Your task to perform on an android device: View the shopping cart on walmart.com. Add "logitech g pro" to the cart on walmart.com, then select checkout. Image 0: 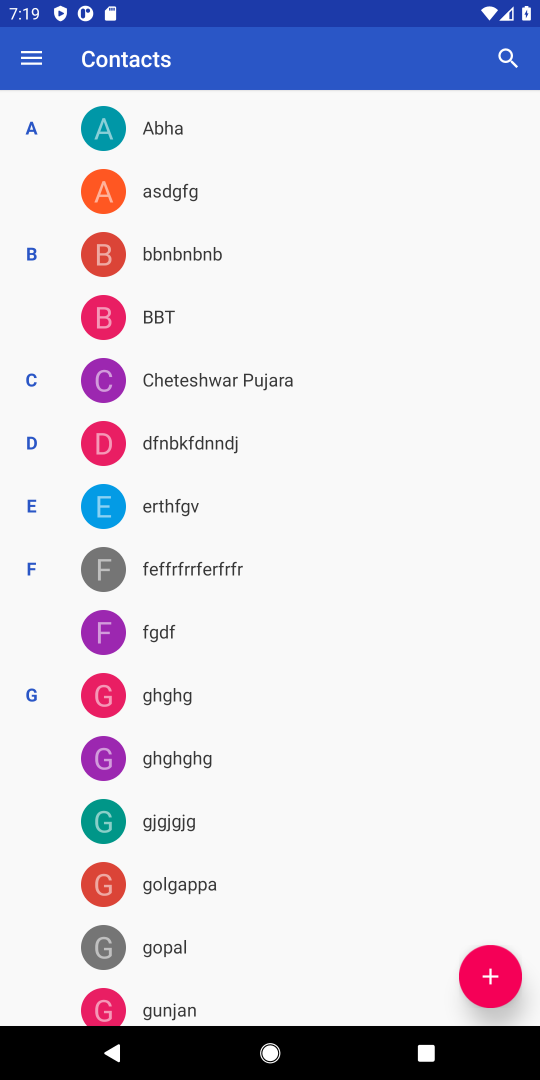
Step 0: press home button
Your task to perform on an android device: View the shopping cart on walmart.com. Add "logitech g pro" to the cart on walmart.com, then select checkout. Image 1: 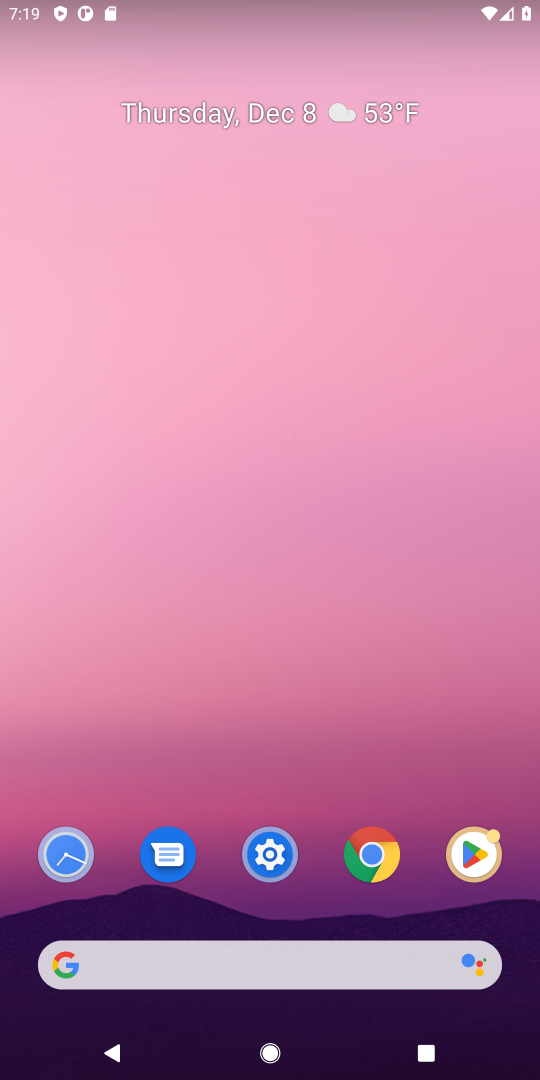
Step 1: click (97, 965)
Your task to perform on an android device: View the shopping cart on walmart.com. Add "logitech g pro" to the cart on walmart.com, then select checkout. Image 2: 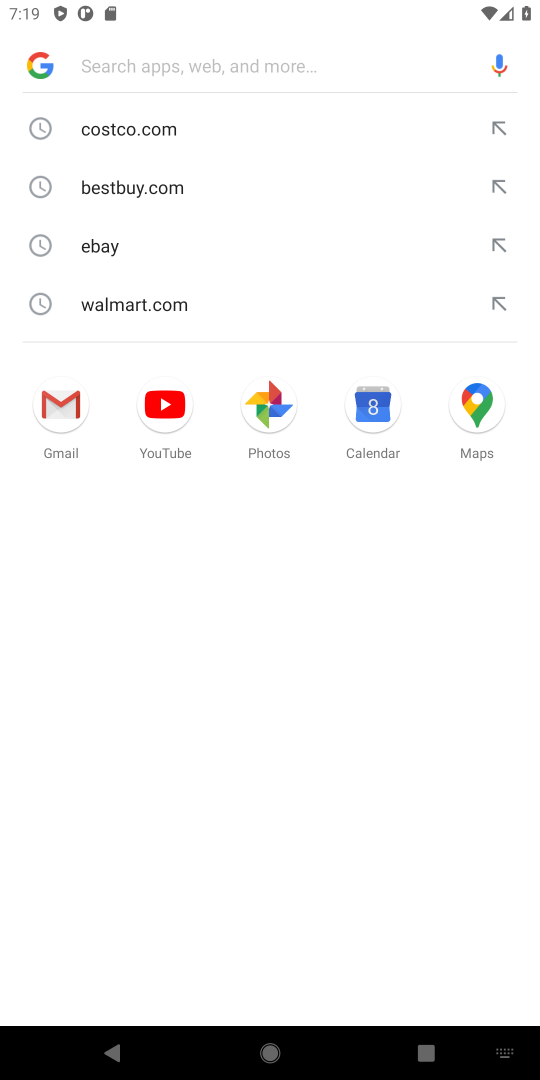
Step 2: type "walmart.com"
Your task to perform on an android device: View the shopping cart on walmart.com. Add "logitech g pro" to the cart on walmart.com, then select checkout. Image 3: 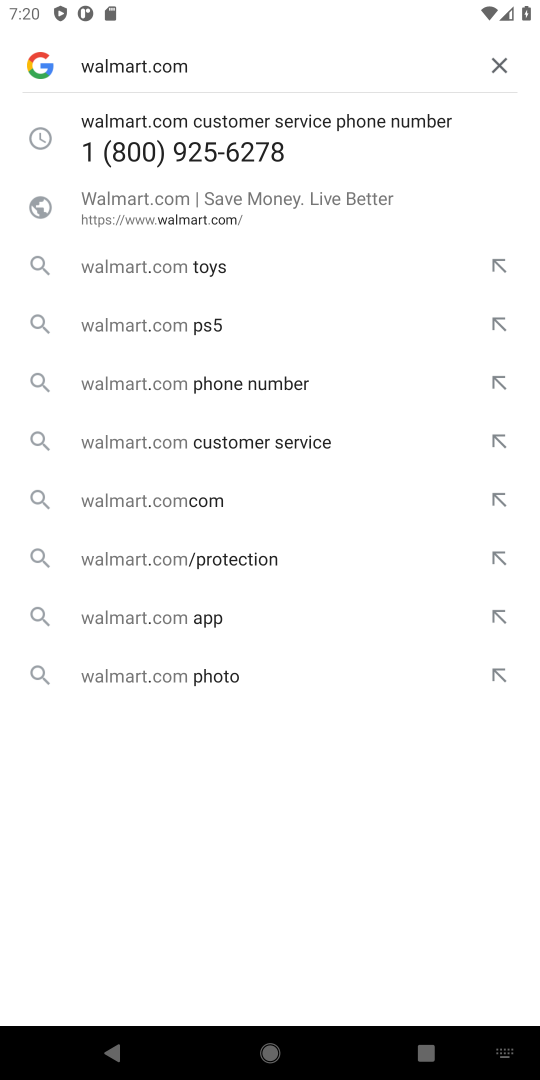
Step 3: press enter
Your task to perform on an android device: View the shopping cart on walmart.com. Add "logitech g pro" to the cart on walmart.com, then select checkout. Image 4: 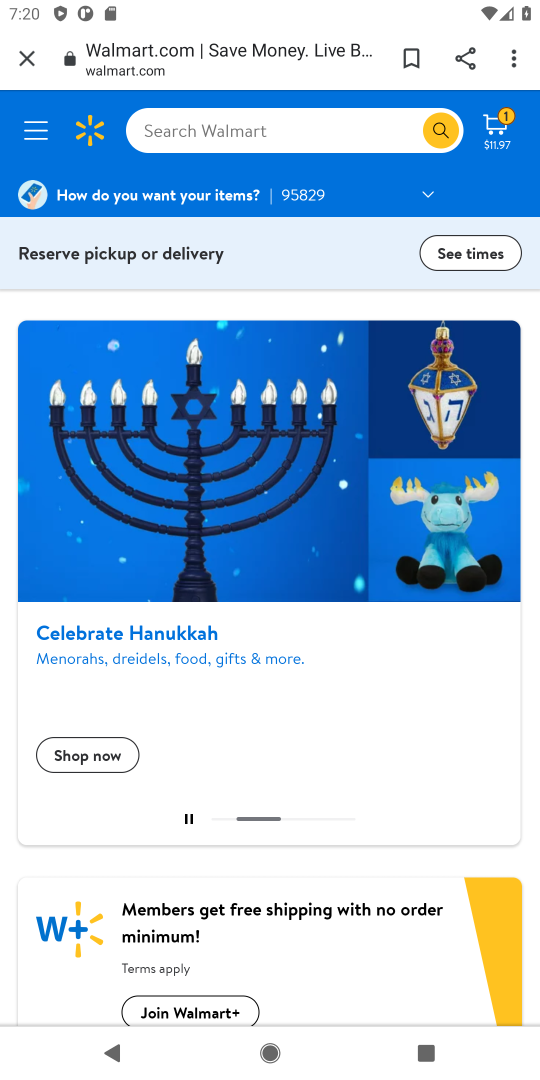
Step 4: click (497, 115)
Your task to perform on an android device: View the shopping cart on walmart.com. Add "logitech g pro" to the cart on walmart.com, then select checkout. Image 5: 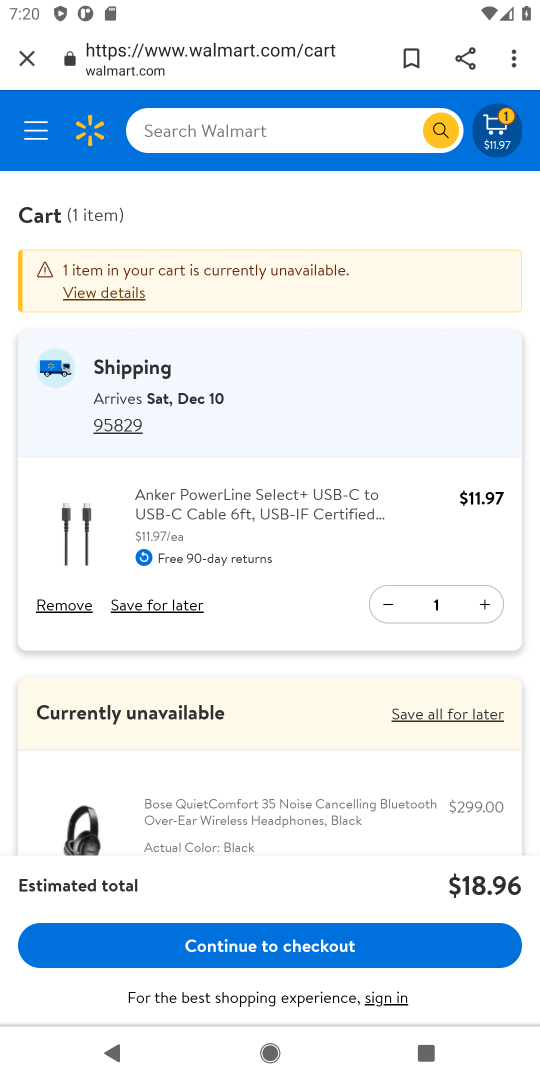
Step 5: click (227, 124)
Your task to perform on an android device: View the shopping cart on walmart.com. Add "logitech g pro" to the cart on walmart.com, then select checkout. Image 6: 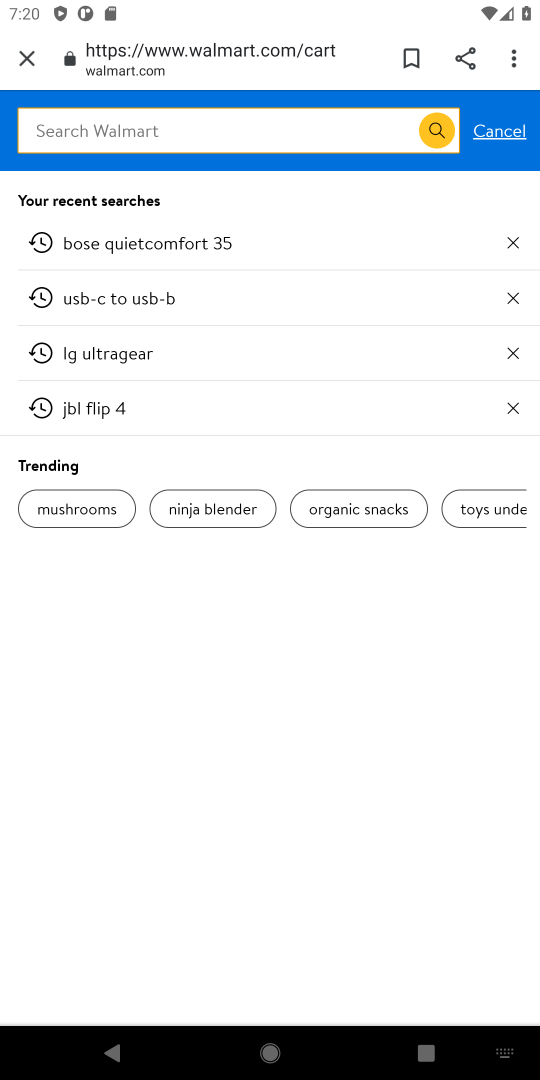
Step 6: type "logitech g pro"
Your task to perform on an android device: View the shopping cart on walmart.com. Add "logitech g pro" to the cart on walmart.com, then select checkout. Image 7: 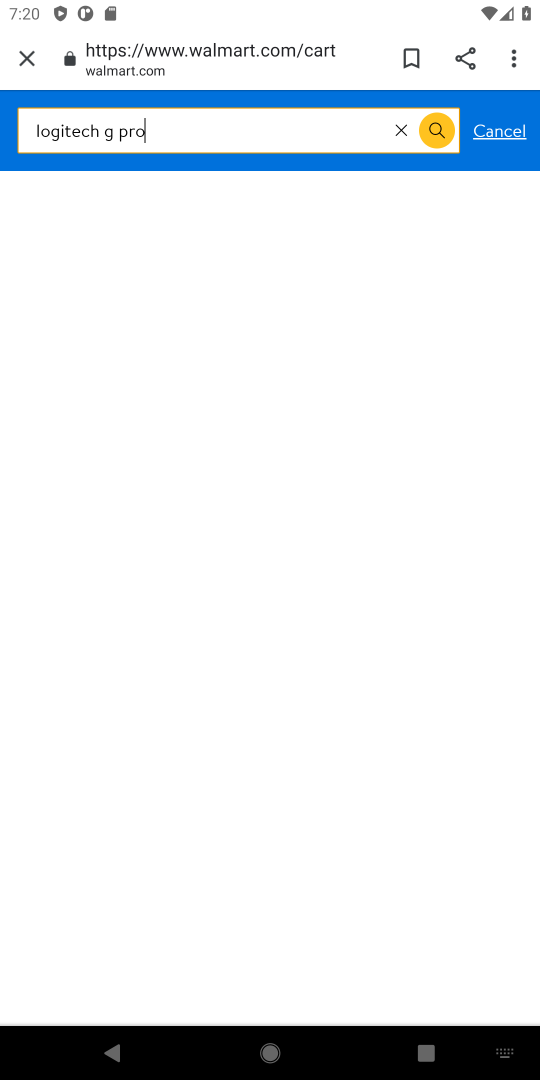
Step 7: press enter
Your task to perform on an android device: View the shopping cart on walmart.com. Add "logitech g pro" to the cart on walmart.com, then select checkout. Image 8: 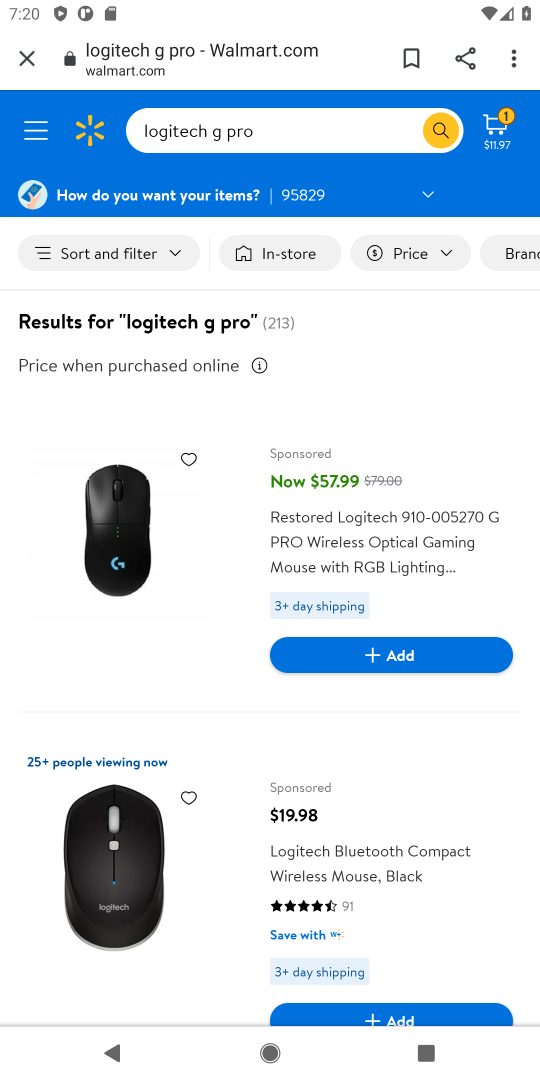
Step 8: drag from (390, 911) to (400, 528)
Your task to perform on an android device: View the shopping cart on walmart.com. Add "logitech g pro" to the cart on walmart.com, then select checkout. Image 9: 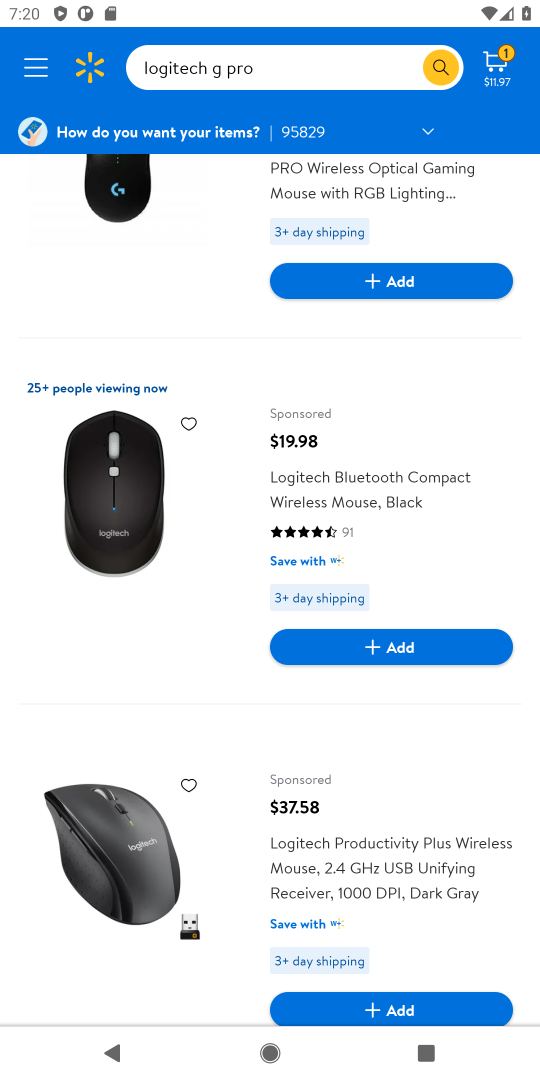
Step 9: drag from (375, 922) to (414, 346)
Your task to perform on an android device: View the shopping cart on walmart.com. Add "logitech g pro" to the cart on walmart.com, then select checkout. Image 10: 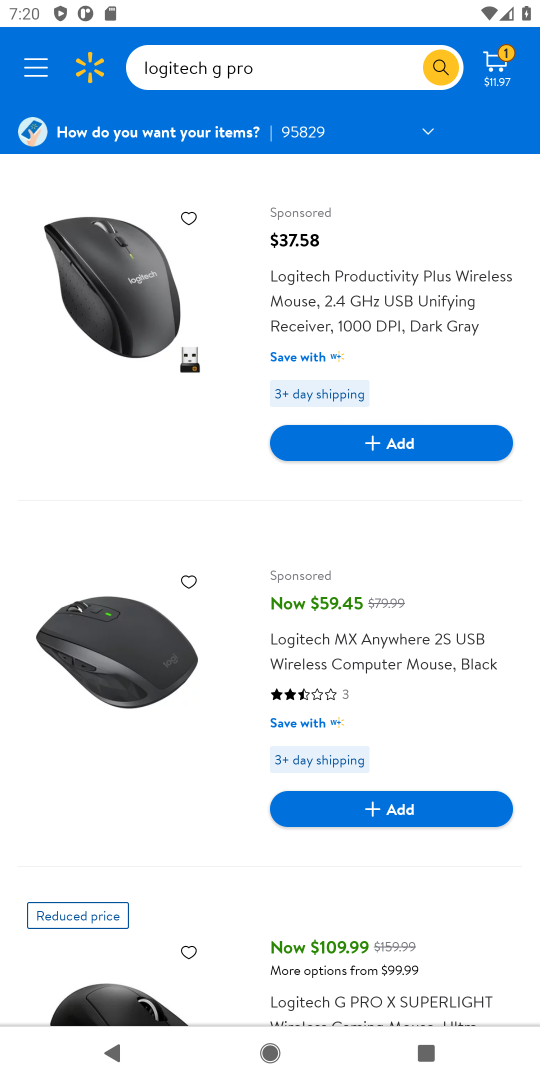
Step 10: drag from (386, 925) to (434, 356)
Your task to perform on an android device: View the shopping cart on walmart.com. Add "logitech g pro" to the cart on walmart.com, then select checkout. Image 11: 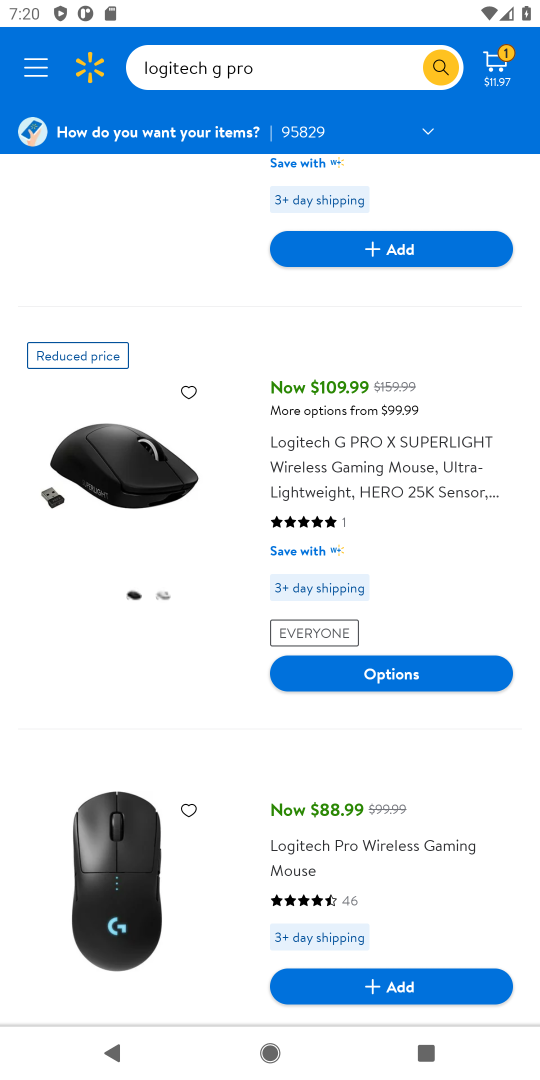
Step 11: click (405, 495)
Your task to perform on an android device: View the shopping cart on walmart.com. Add "logitech g pro" to the cart on walmart.com, then select checkout. Image 12: 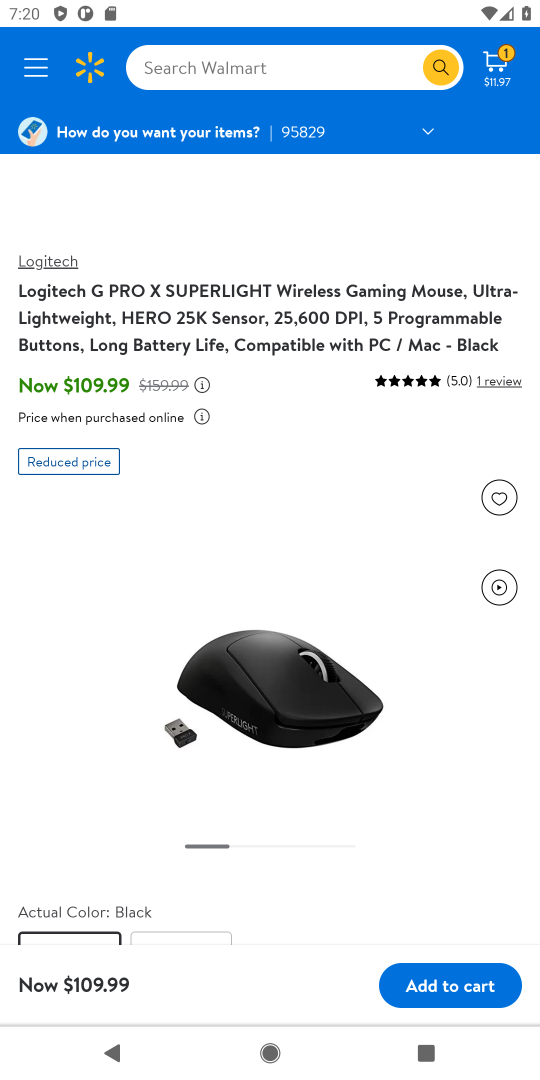
Step 12: click (415, 978)
Your task to perform on an android device: View the shopping cart on walmart.com. Add "logitech g pro" to the cart on walmart.com, then select checkout. Image 13: 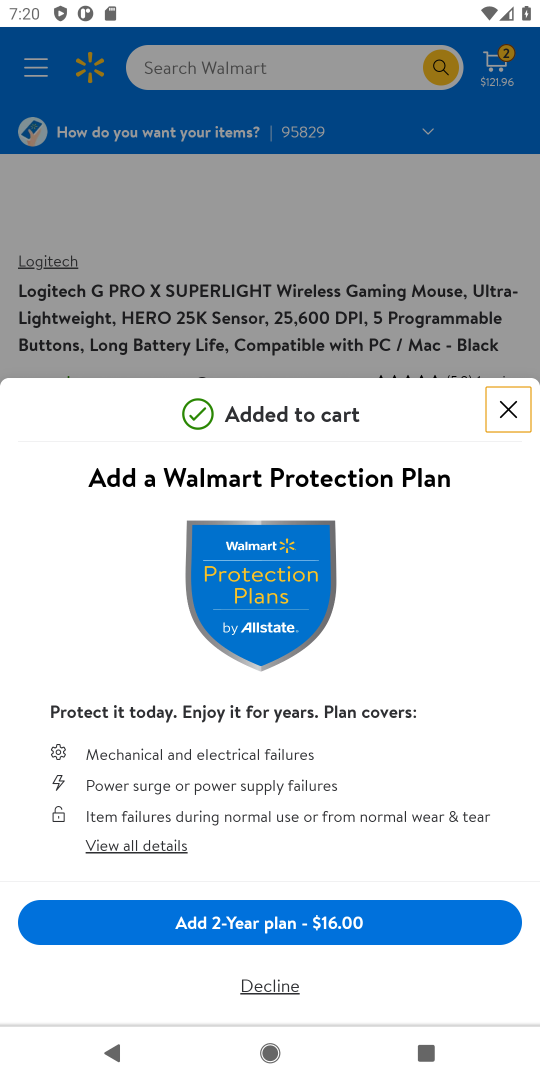
Step 13: click (260, 986)
Your task to perform on an android device: View the shopping cart on walmart.com. Add "logitech g pro" to the cart on walmart.com, then select checkout. Image 14: 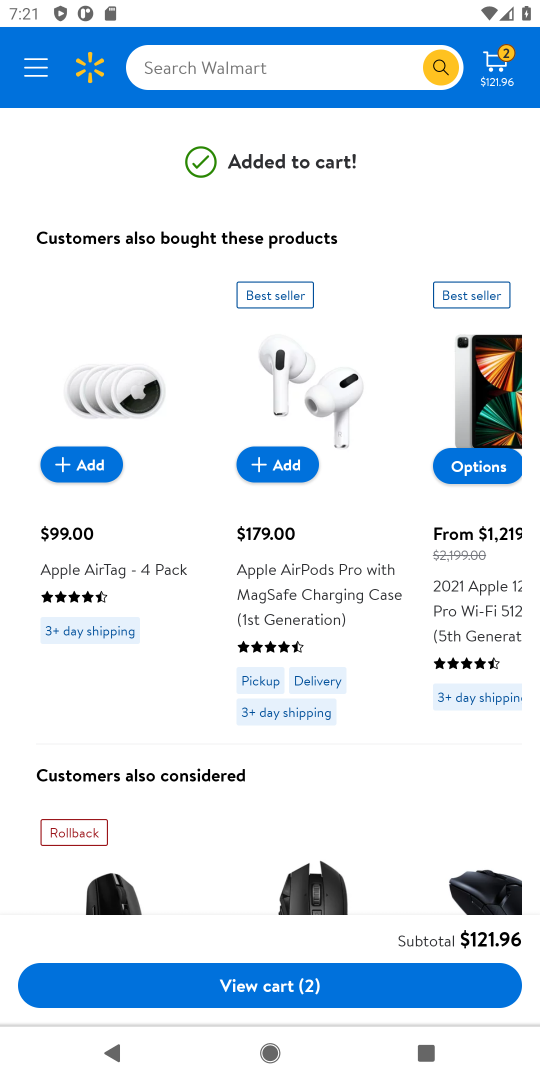
Step 14: click (282, 988)
Your task to perform on an android device: View the shopping cart on walmart.com. Add "logitech g pro" to the cart on walmart.com, then select checkout. Image 15: 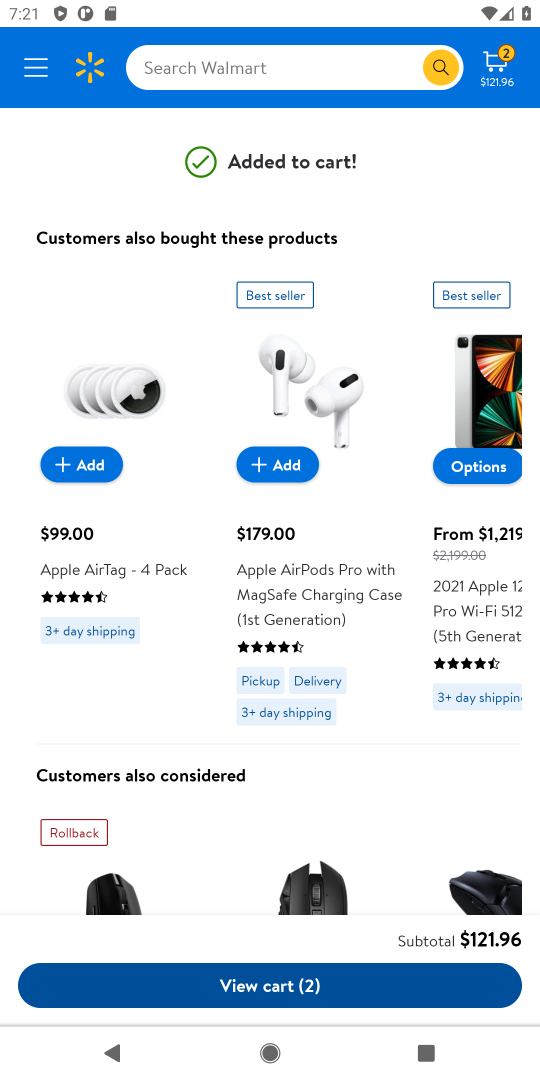
Step 15: click (237, 985)
Your task to perform on an android device: View the shopping cart on walmart.com. Add "logitech g pro" to the cart on walmart.com, then select checkout. Image 16: 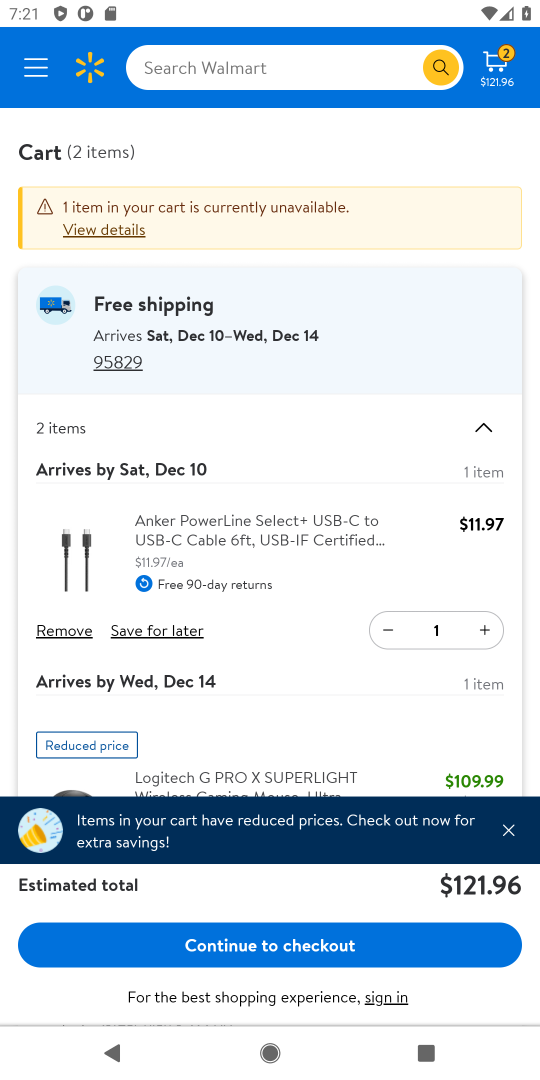
Step 16: click (257, 952)
Your task to perform on an android device: View the shopping cart on walmart.com. Add "logitech g pro" to the cart on walmart.com, then select checkout. Image 17: 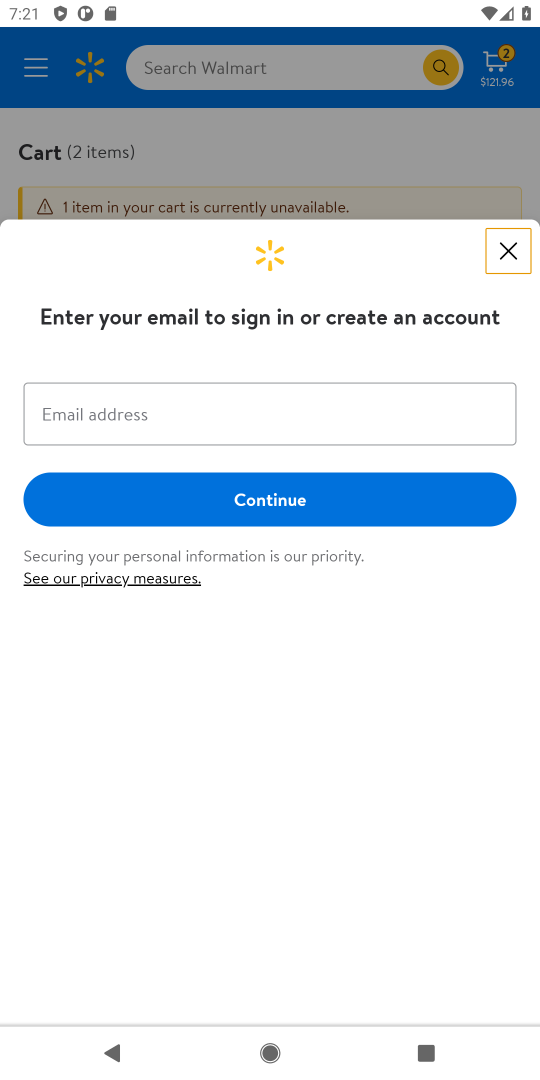
Step 17: task complete